Your task to perform on an android device: turn on improve location accuracy Image 0: 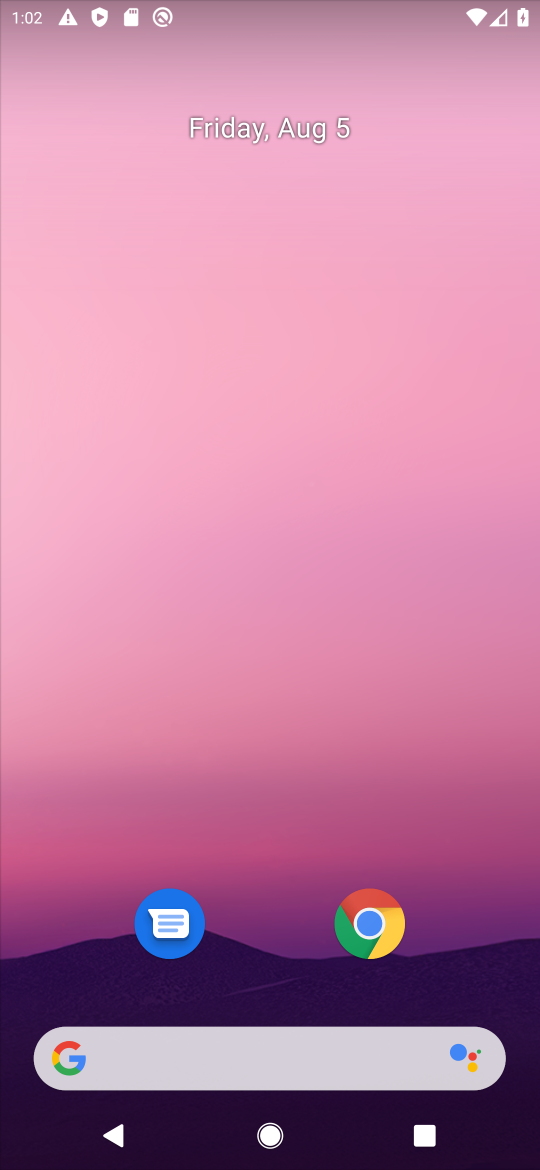
Step 0: drag from (258, 900) to (230, 118)
Your task to perform on an android device: turn on improve location accuracy Image 1: 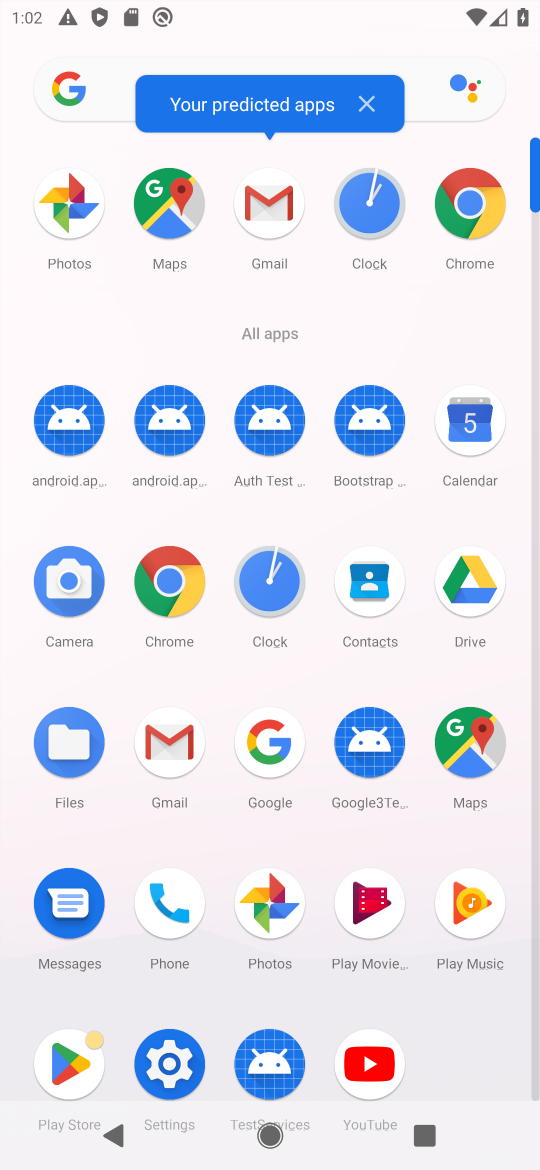
Step 1: click (172, 1065)
Your task to perform on an android device: turn on improve location accuracy Image 2: 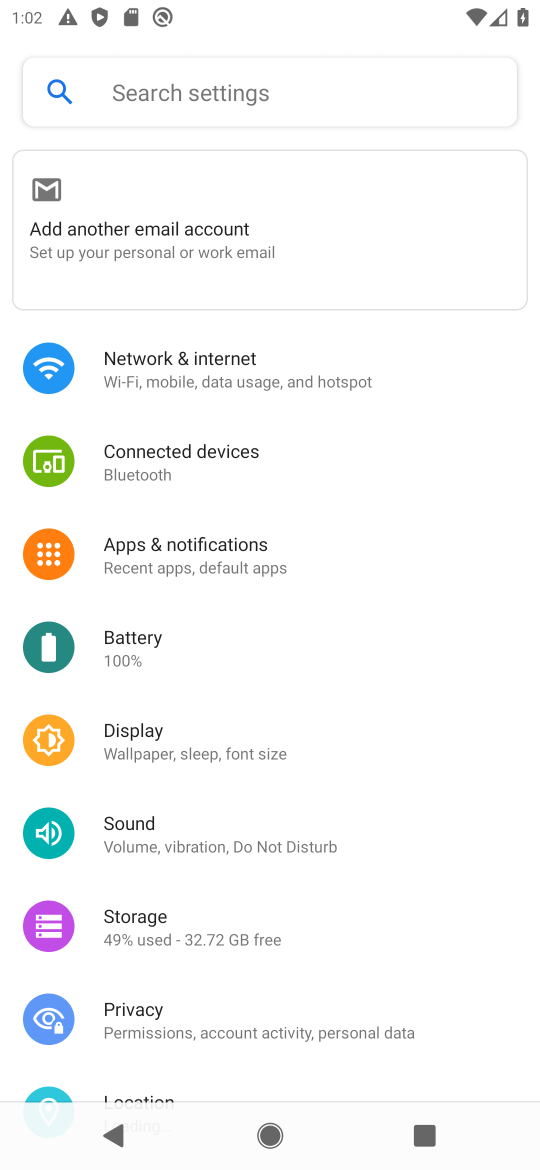
Step 2: click (130, 1081)
Your task to perform on an android device: turn on improve location accuracy Image 3: 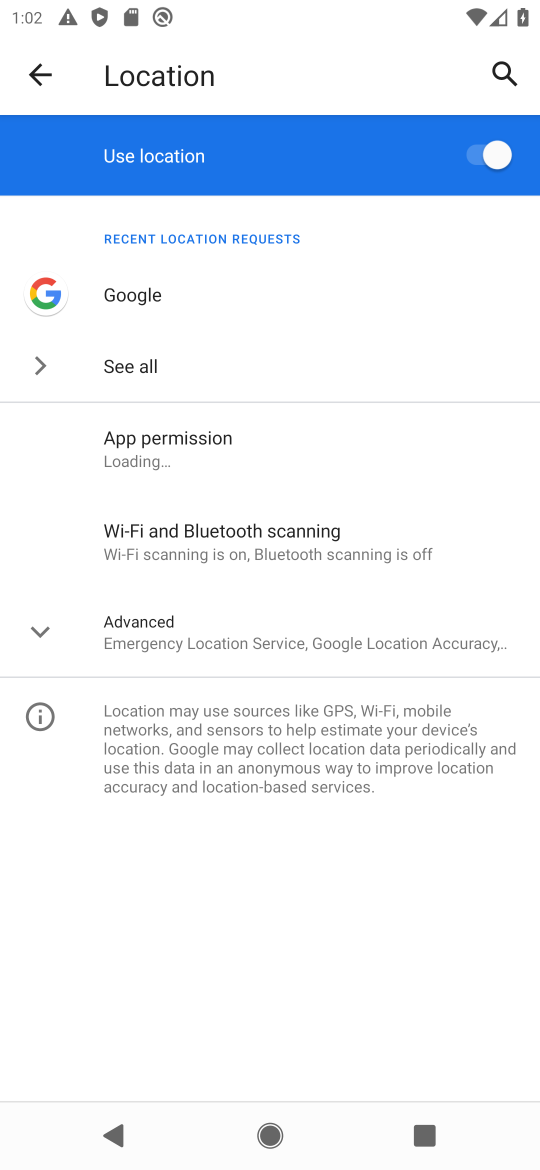
Step 3: click (187, 642)
Your task to perform on an android device: turn on improve location accuracy Image 4: 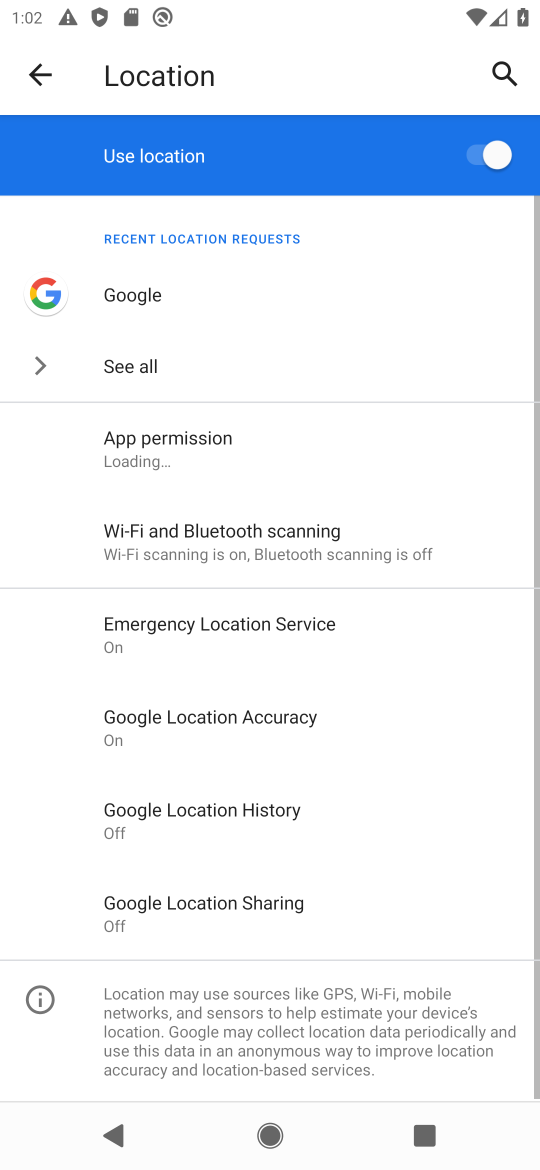
Step 4: click (189, 718)
Your task to perform on an android device: turn on improve location accuracy Image 5: 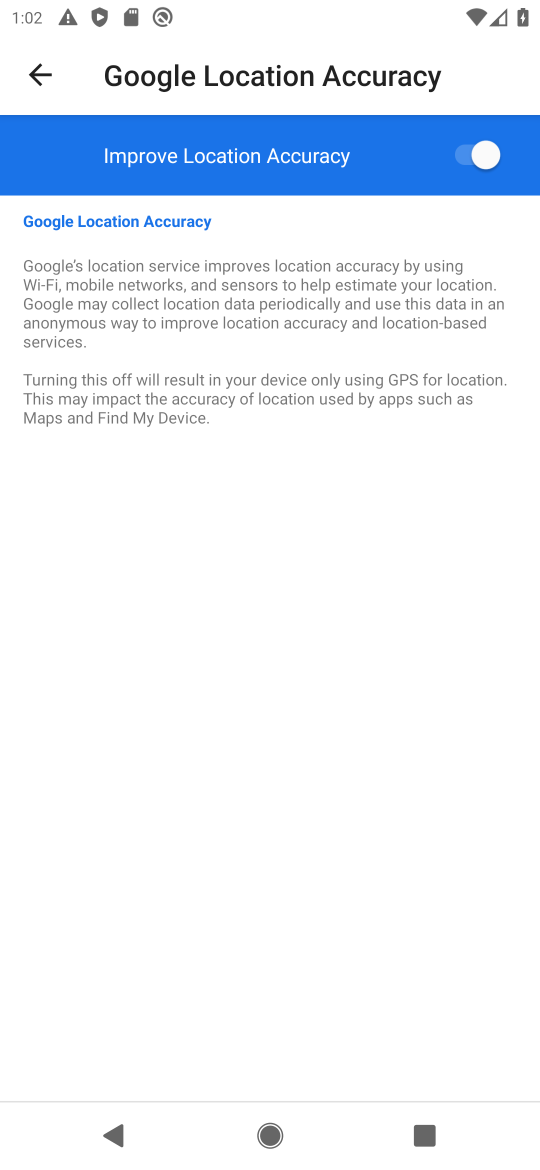
Step 5: task complete